Your task to perform on an android device: Play the last video I watched on Youtube Image 0: 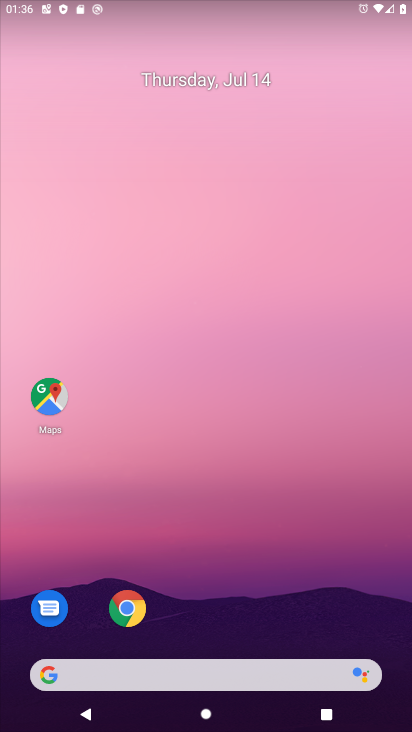
Step 0: press home button
Your task to perform on an android device: Play the last video I watched on Youtube Image 1: 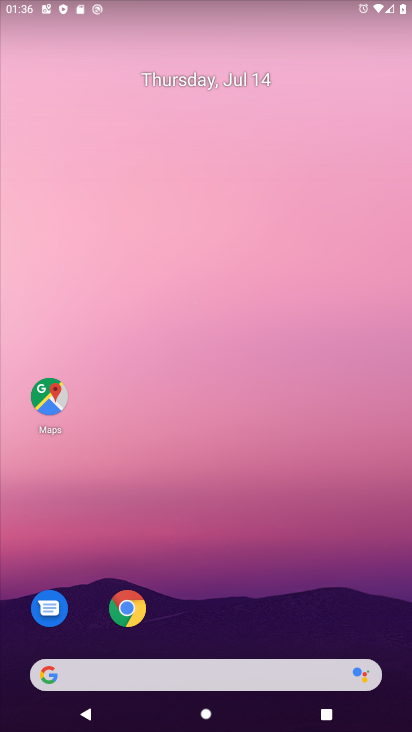
Step 1: drag from (299, 575) to (316, 209)
Your task to perform on an android device: Play the last video I watched on Youtube Image 2: 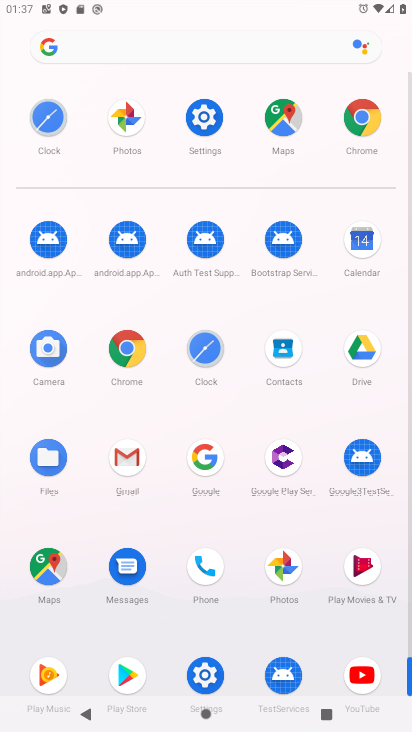
Step 2: click (366, 676)
Your task to perform on an android device: Play the last video I watched on Youtube Image 3: 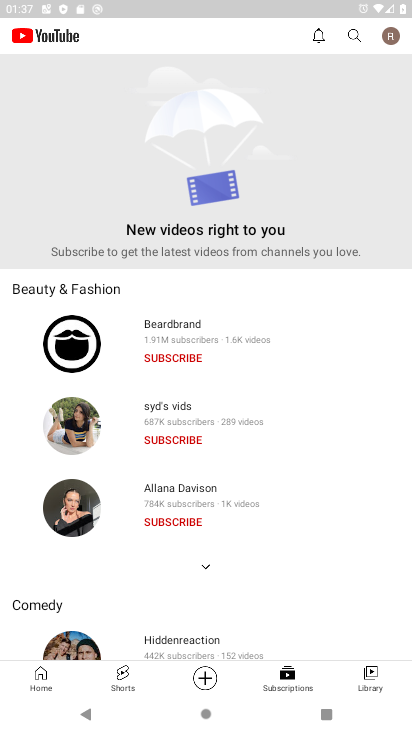
Step 3: click (377, 692)
Your task to perform on an android device: Play the last video I watched on Youtube Image 4: 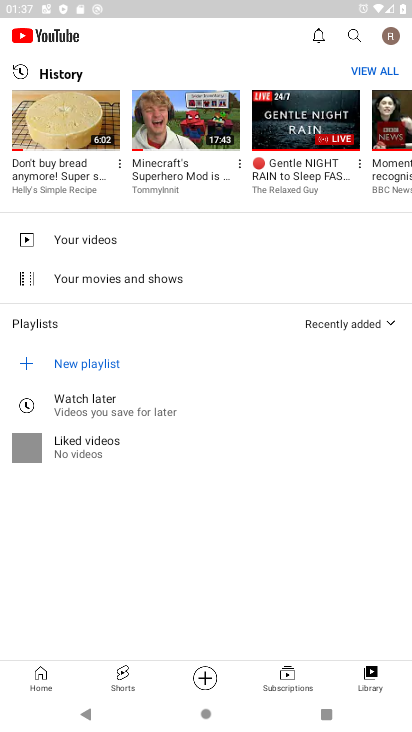
Step 4: click (402, 30)
Your task to perform on an android device: Play the last video I watched on Youtube Image 5: 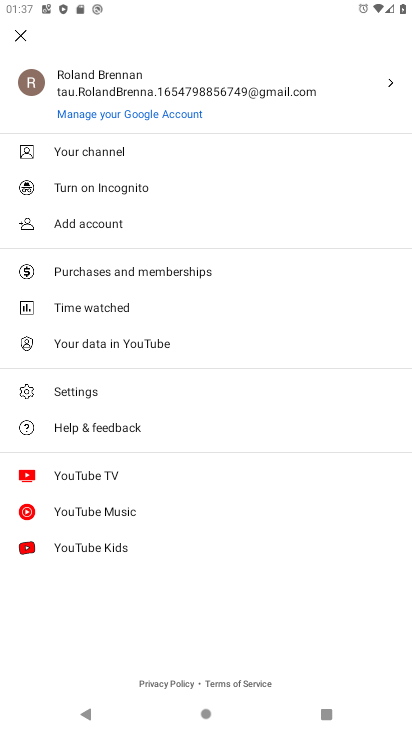
Step 5: press back button
Your task to perform on an android device: Play the last video I watched on Youtube Image 6: 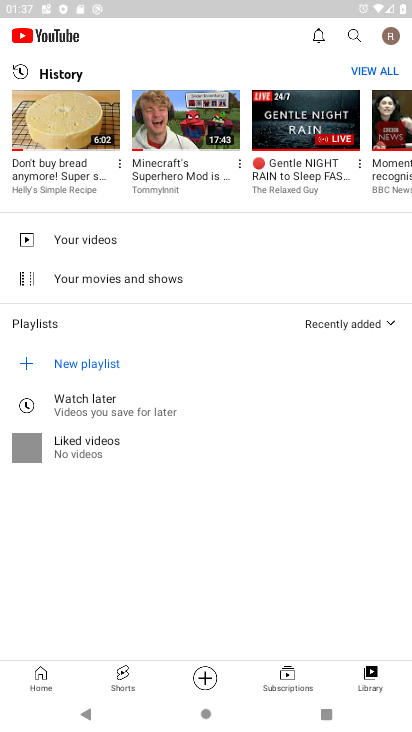
Step 6: click (63, 684)
Your task to perform on an android device: Play the last video I watched on Youtube Image 7: 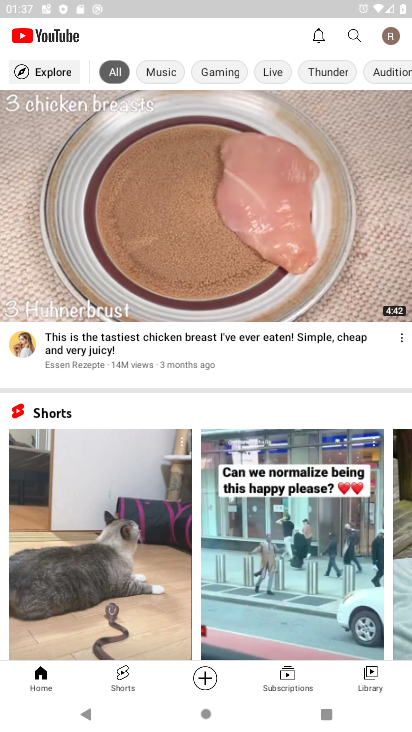
Step 7: click (356, 689)
Your task to perform on an android device: Play the last video I watched on Youtube Image 8: 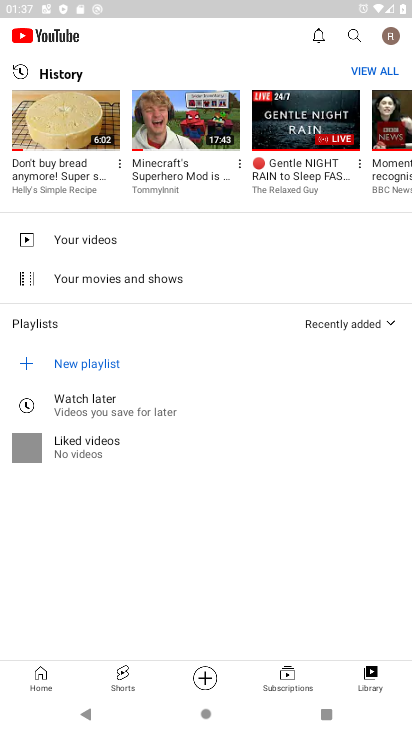
Step 8: click (91, 159)
Your task to perform on an android device: Play the last video I watched on Youtube Image 9: 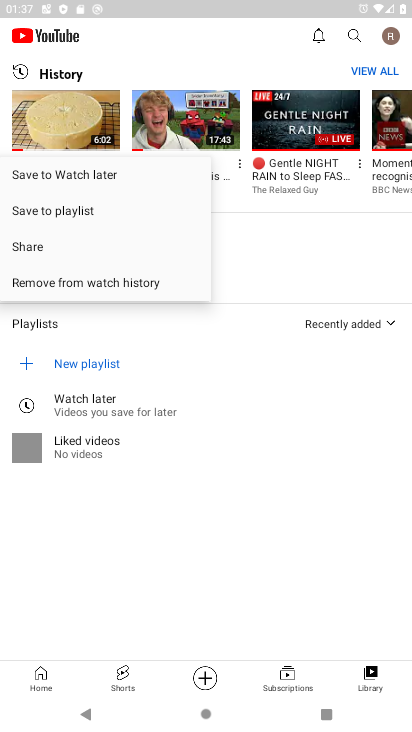
Step 9: click (43, 114)
Your task to perform on an android device: Play the last video I watched on Youtube Image 10: 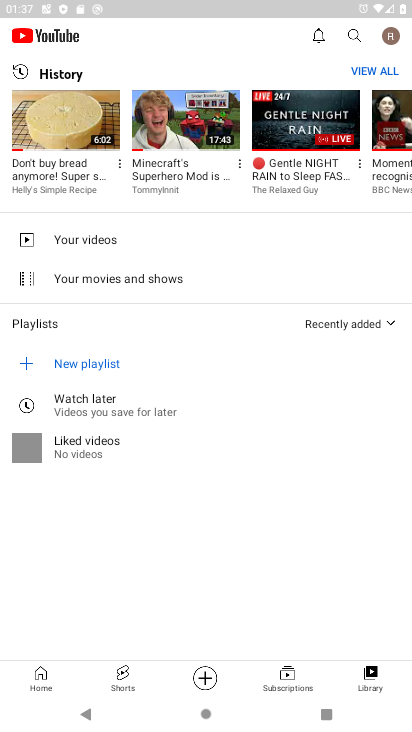
Step 10: click (29, 129)
Your task to perform on an android device: Play the last video I watched on Youtube Image 11: 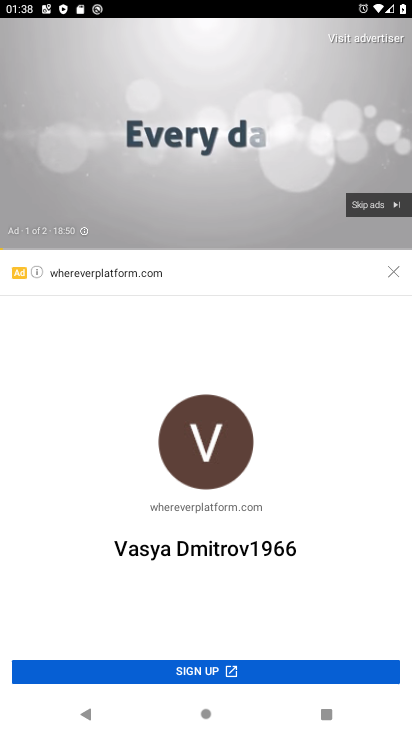
Step 11: click (388, 276)
Your task to perform on an android device: Play the last video I watched on Youtube Image 12: 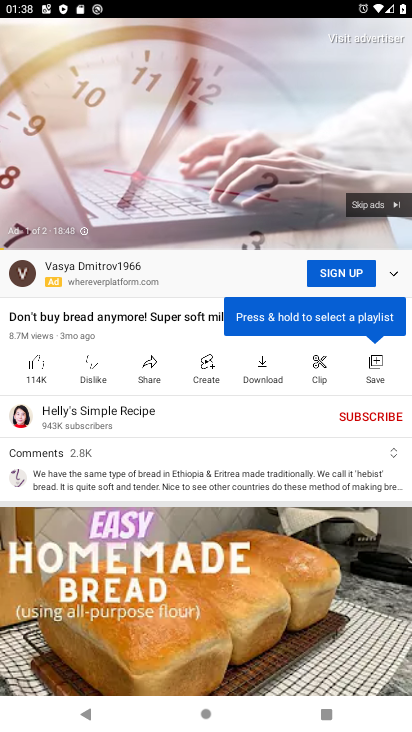
Step 12: click (376, 202)
Your task to perform on an android device: Play the last video I watched on Youtube Image 13: 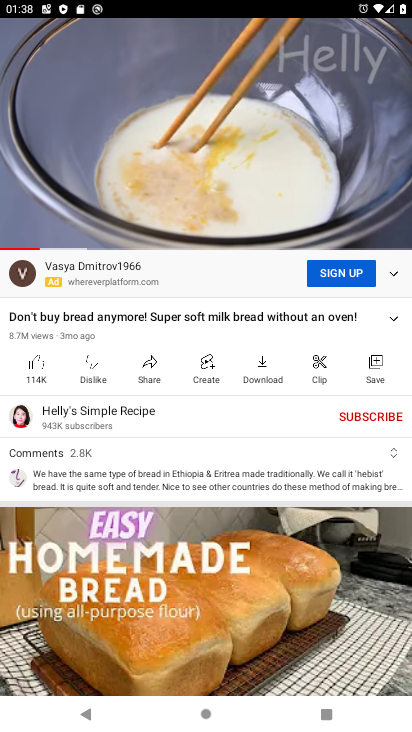
Step 13: task complete